Your task to perform on an android device: Go to eBay Image 0: 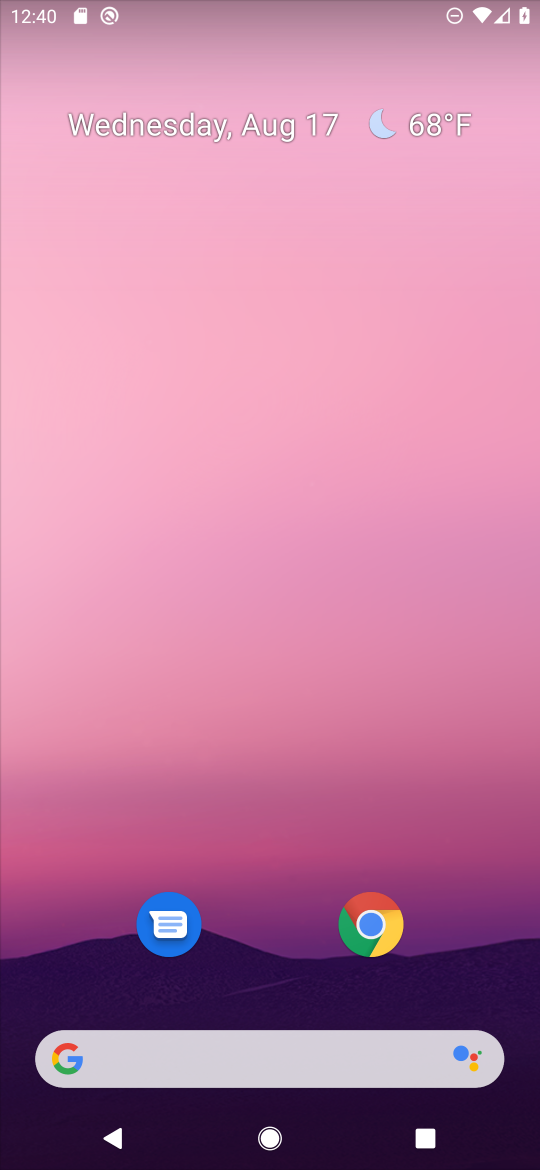
Step 0: click (238, 1069)
Your task to perform on an android device: Go to eBay Image 1: 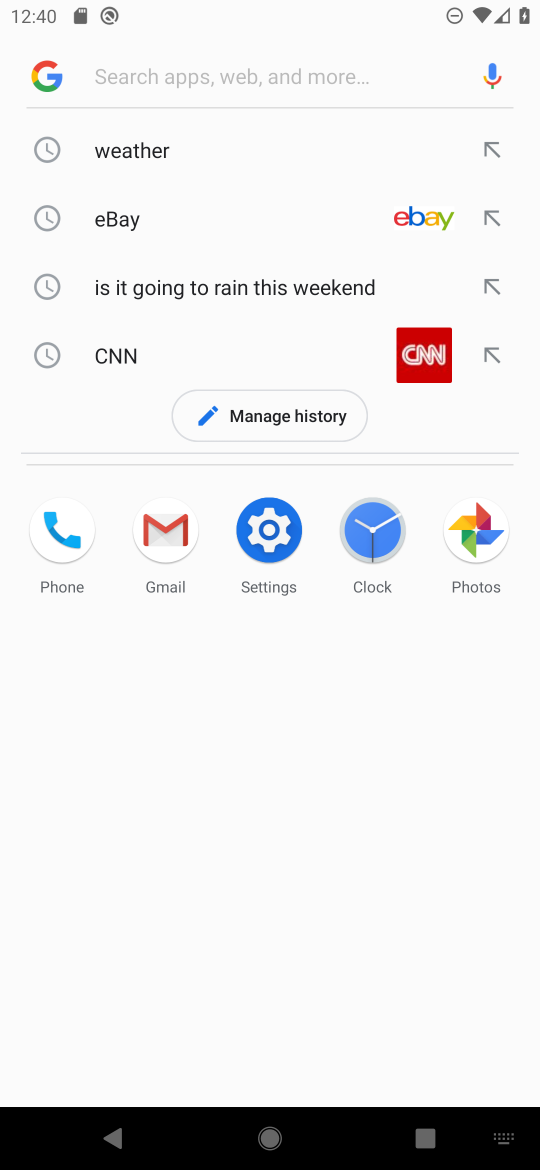
Step 1: click (271, 229)
Your task to perform on an android device: Go to eBay Image 2: 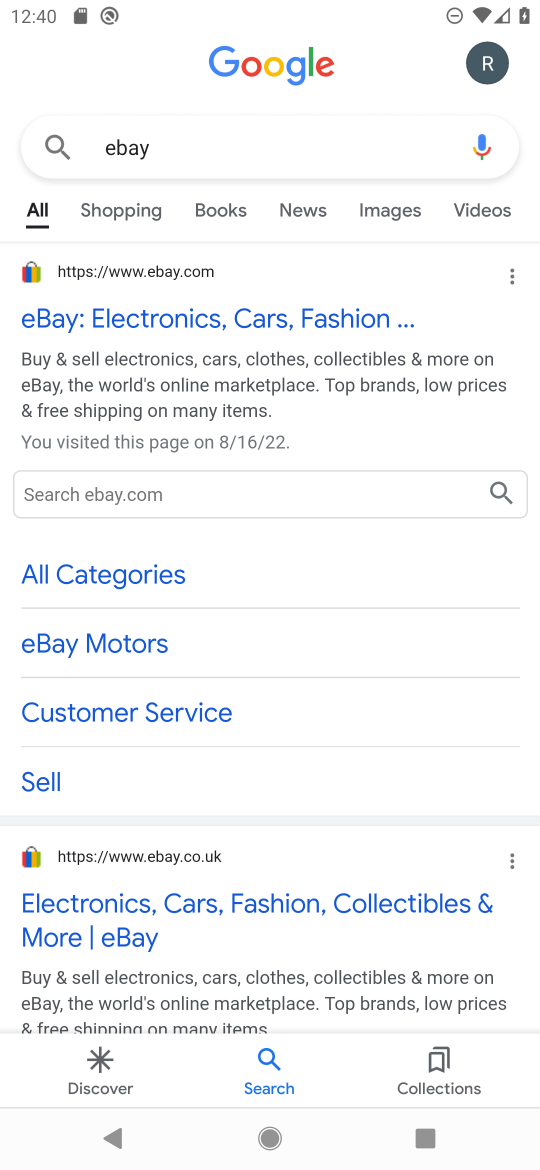
Step 2: task complete